Your task to perform on an android device: open app "Life360: Find Family & Friends" (install if not already installed) and enter user name: "gusts@gmail.com" and password: "assurers" Image 0: 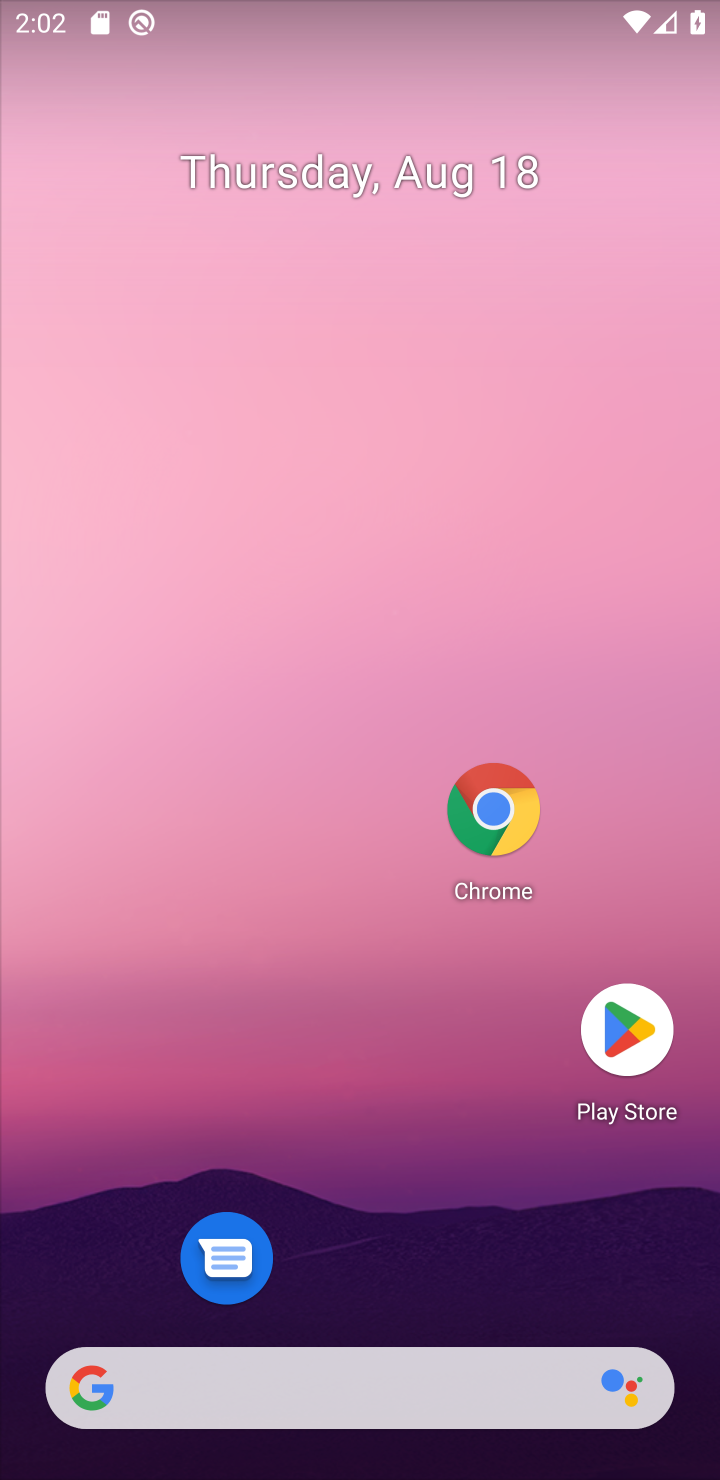
Step 0: drag from (124, 1163) to (143, 310)
Your task to perform on an android device: open app "Life360: Find Family & Friends" (install if not already installed) and enter user name: "gusts@gmail.com" and password: "assurers" Image 1: 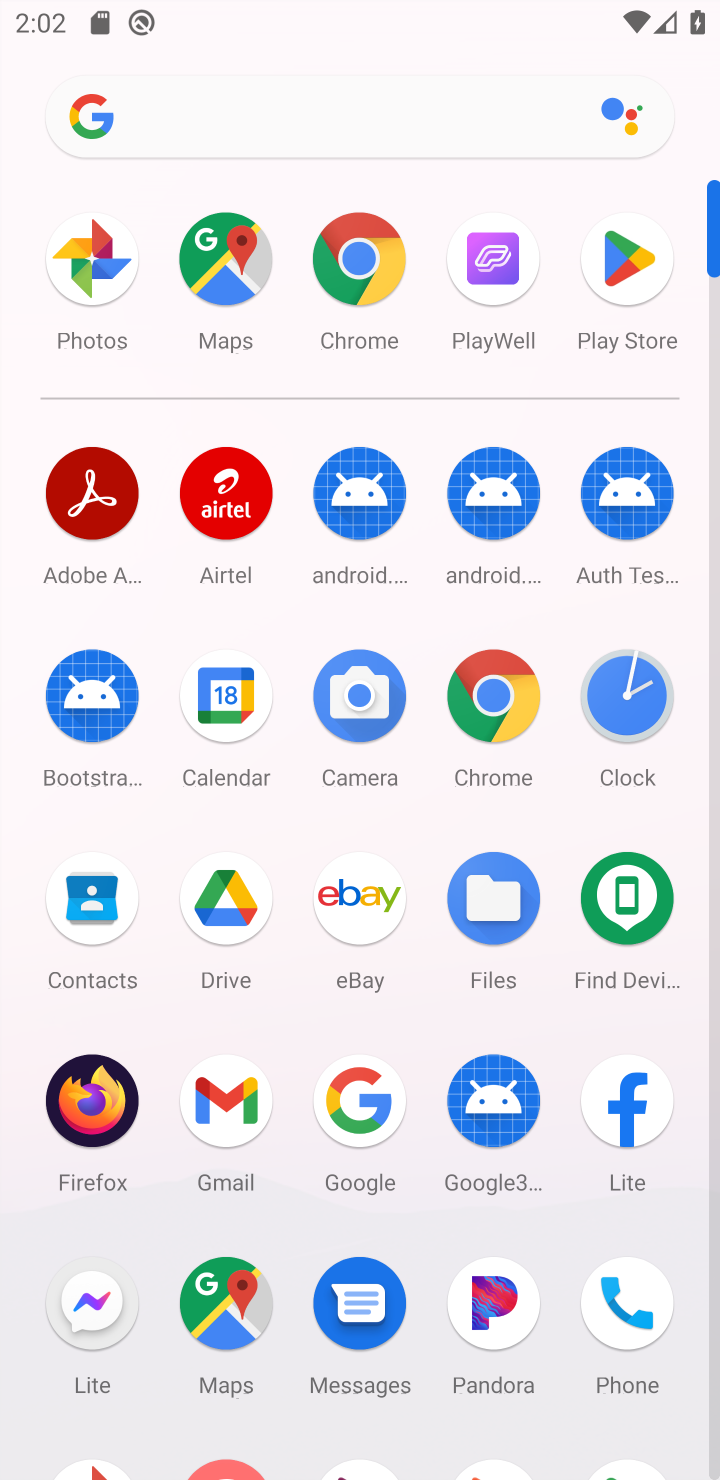
Step 1: click (614, 263)
Your task to perform on an android device: open app "Life360: Find Family & Friends" (install if not already installed) and enter user name: "gusts@gmail.com" and password: "assurers" Image 2: 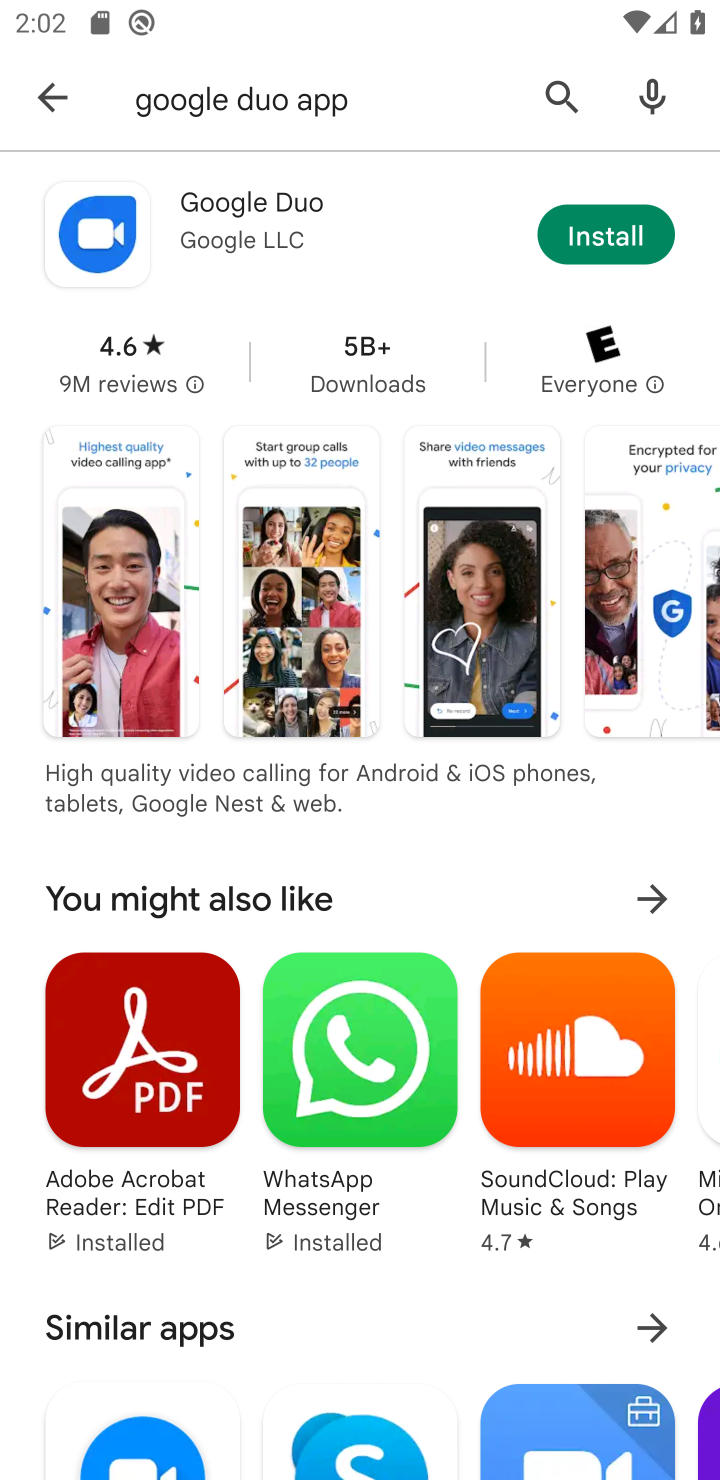
Step 2: click (66, 116)
Your task to perform on an android device: open app "Life360: Find Family & Friends" (install if not already installed) and enter user name: "gusts@gmail.com" and password: "assurers" Image 3: 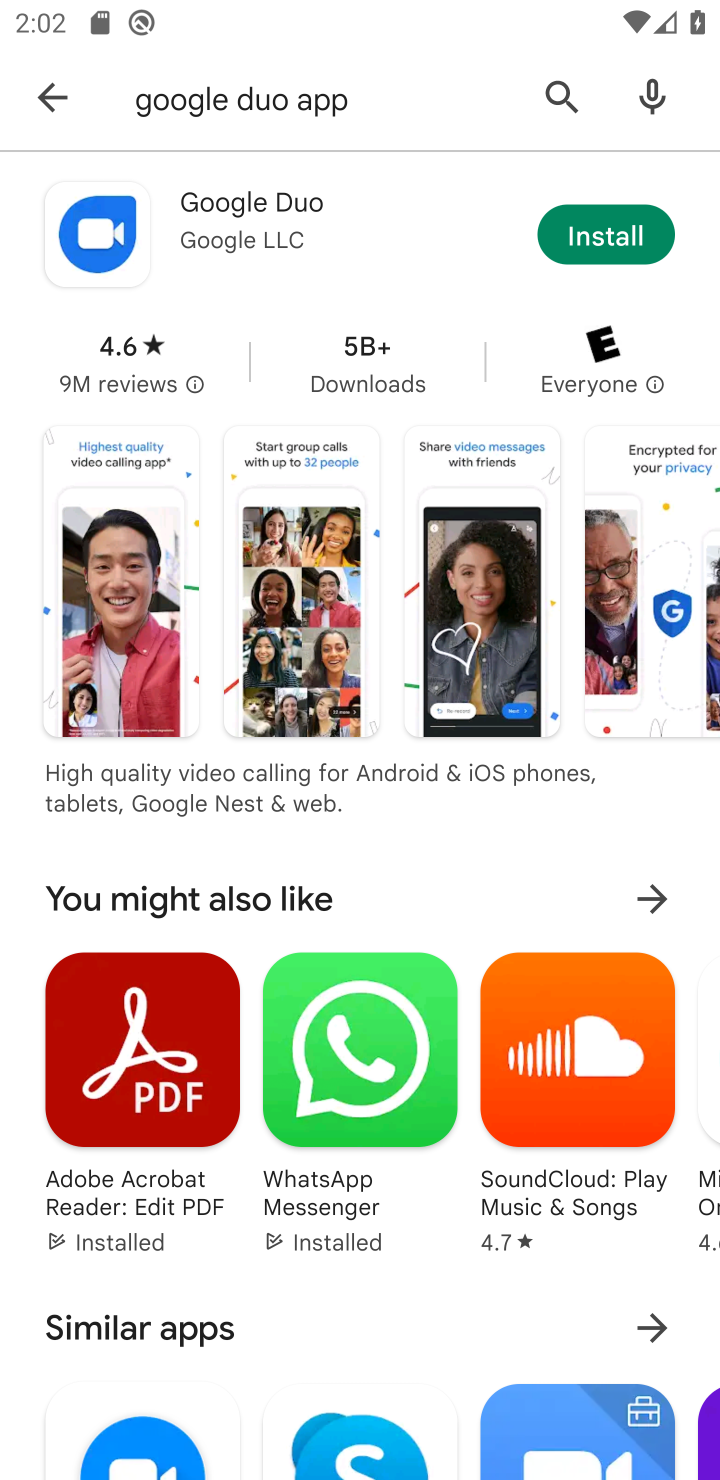
Step 3: click (55, 79)
Your task to perform on an android device: open app "Life360: Find Family & Friends" (install if not already installed) and enter user name: "gusts@gmail.com" and password: "assurers" Image 4: 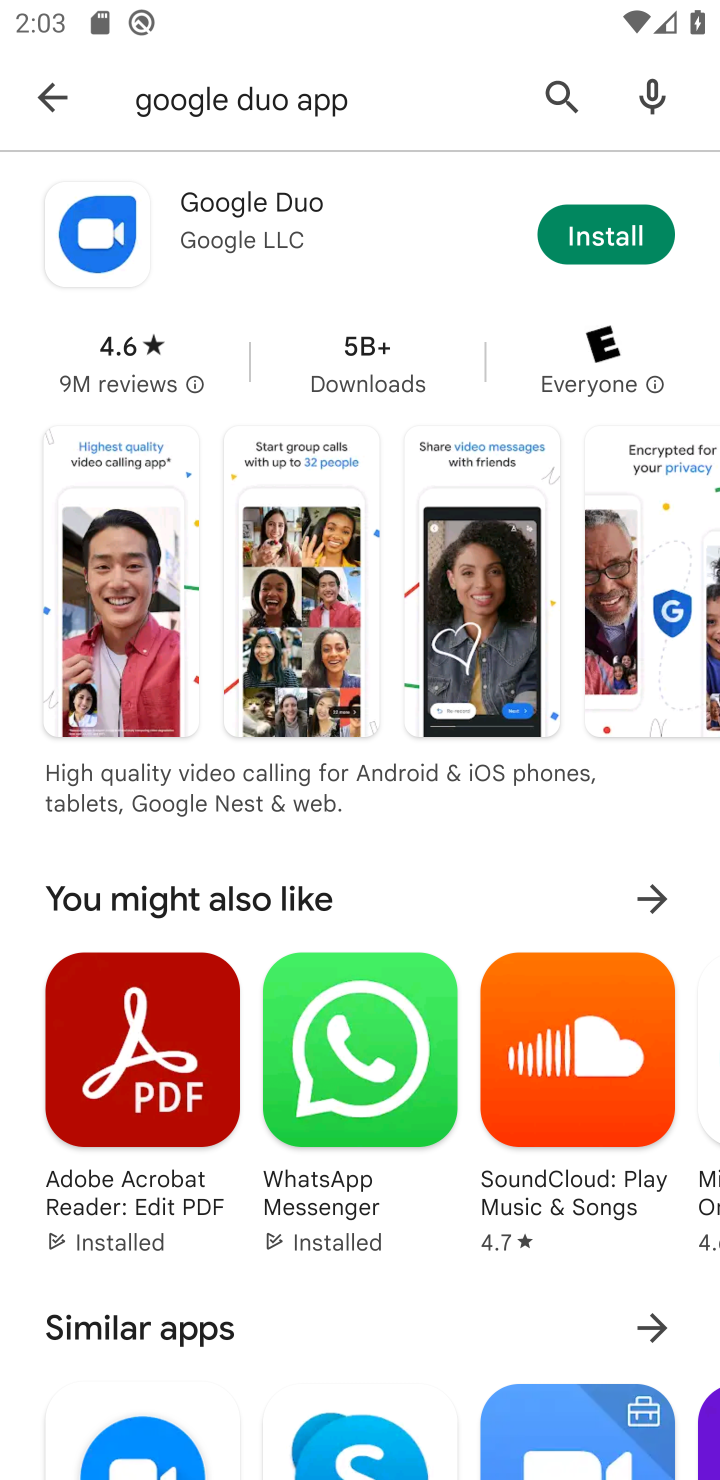
Step 4: click (53, 93)
Your task to perform on an android device: open app "Life360: Find Family & Friends" (install if not already installed) and enter user name: "gusts@gmail.com" and password: "assurers" Image 5: 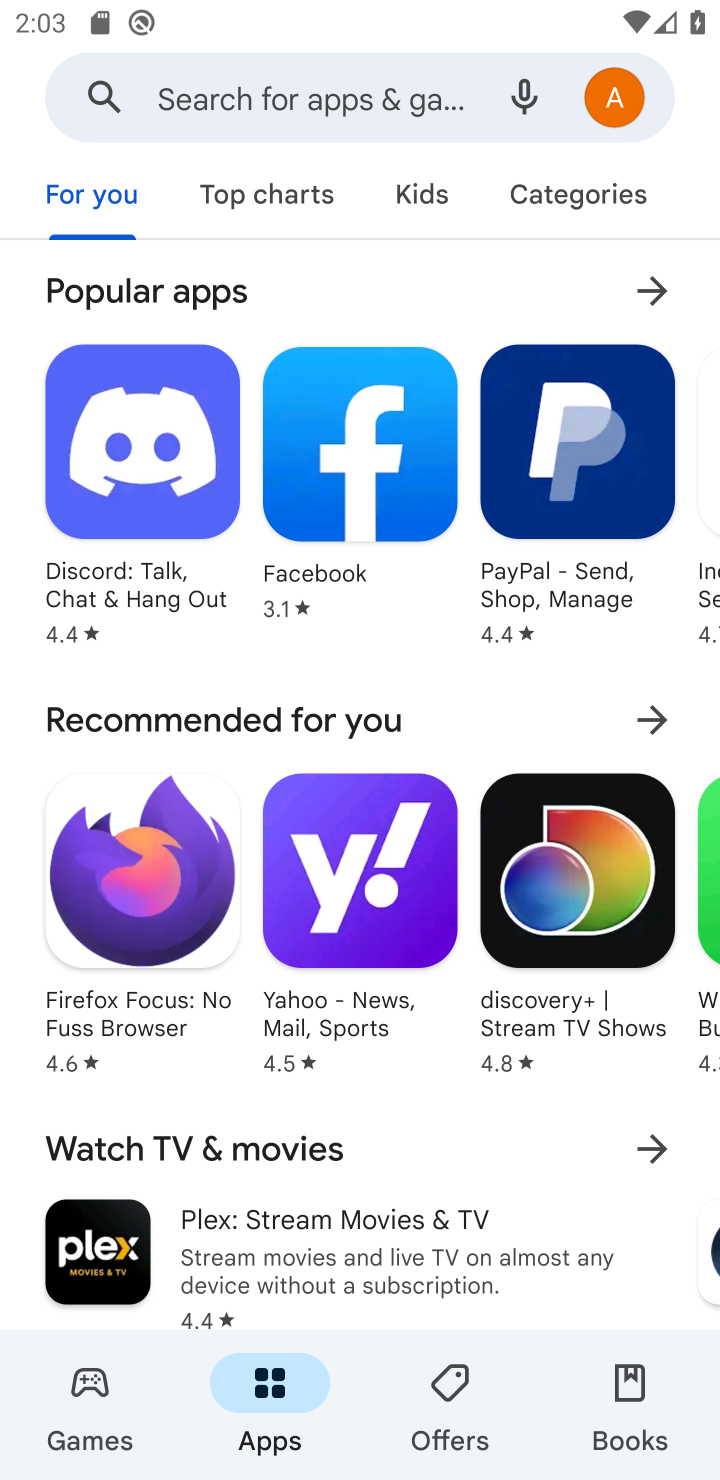
Step 5: click (354, 139)
Your task to perform on an android device: open app "Life360: Find Family & Friends" (install if not already installed) and enter user name: "gusts@gmail.com" and password: "assurers" Image 6: 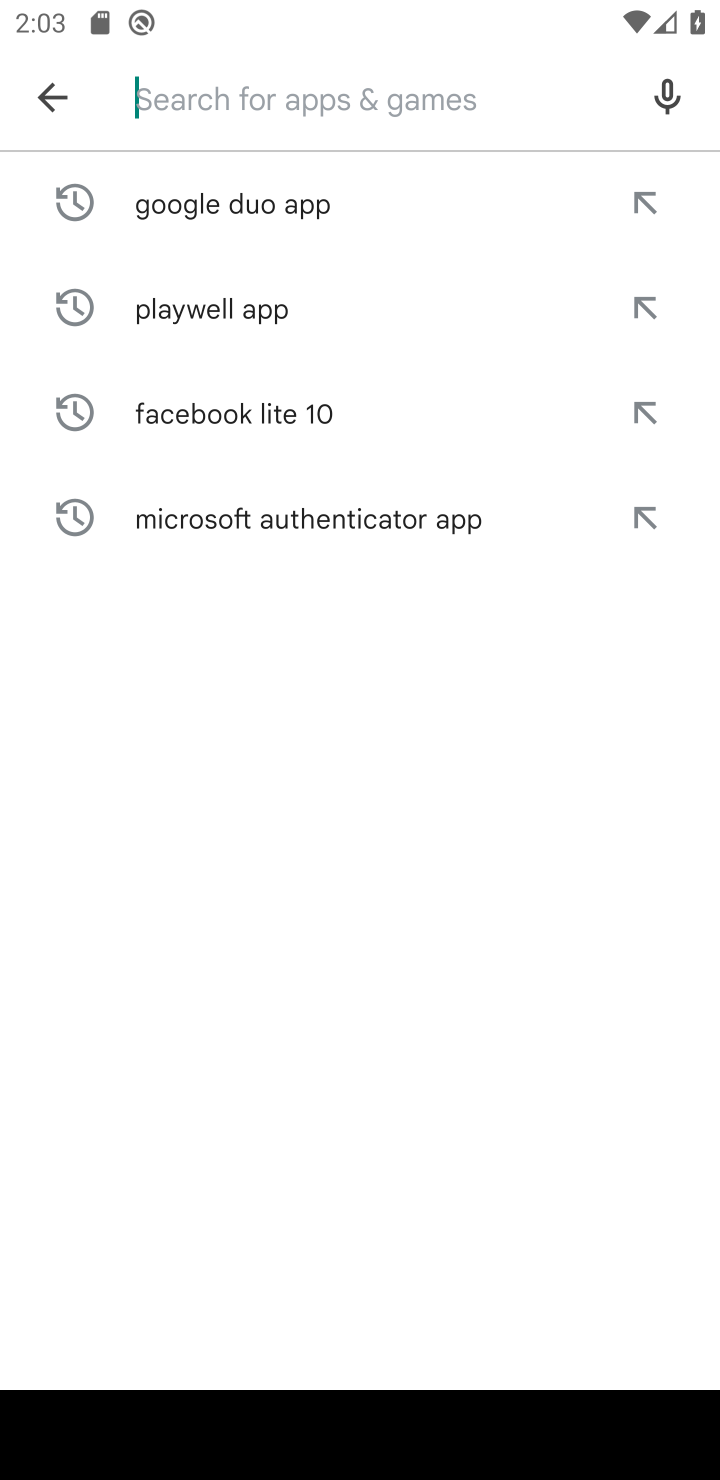
Step 6: click (380, 76)
Your task to perform on an android device: open app "Life360: Find Family & Friends" (install if not already installed) and enter user name: "gusts@gmail.com" and password: "assurers" Image 7: 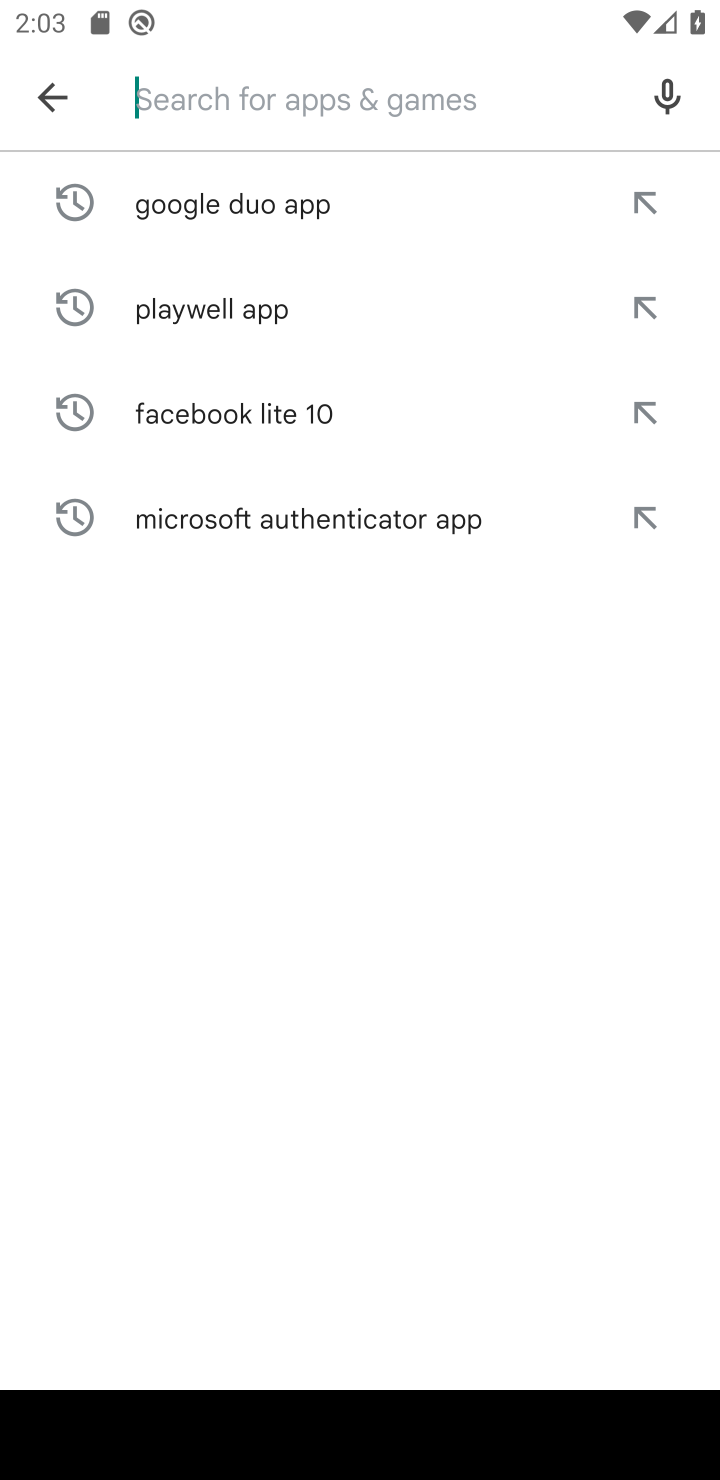
Step 7: type "Life360: Find Family & Friends "
Your task to perform on an android device: open app "Life360: Find Family & Friends" (install if not already installed) and enter user name: "gusts@gmail.com" and password: "assurers" Image 8: 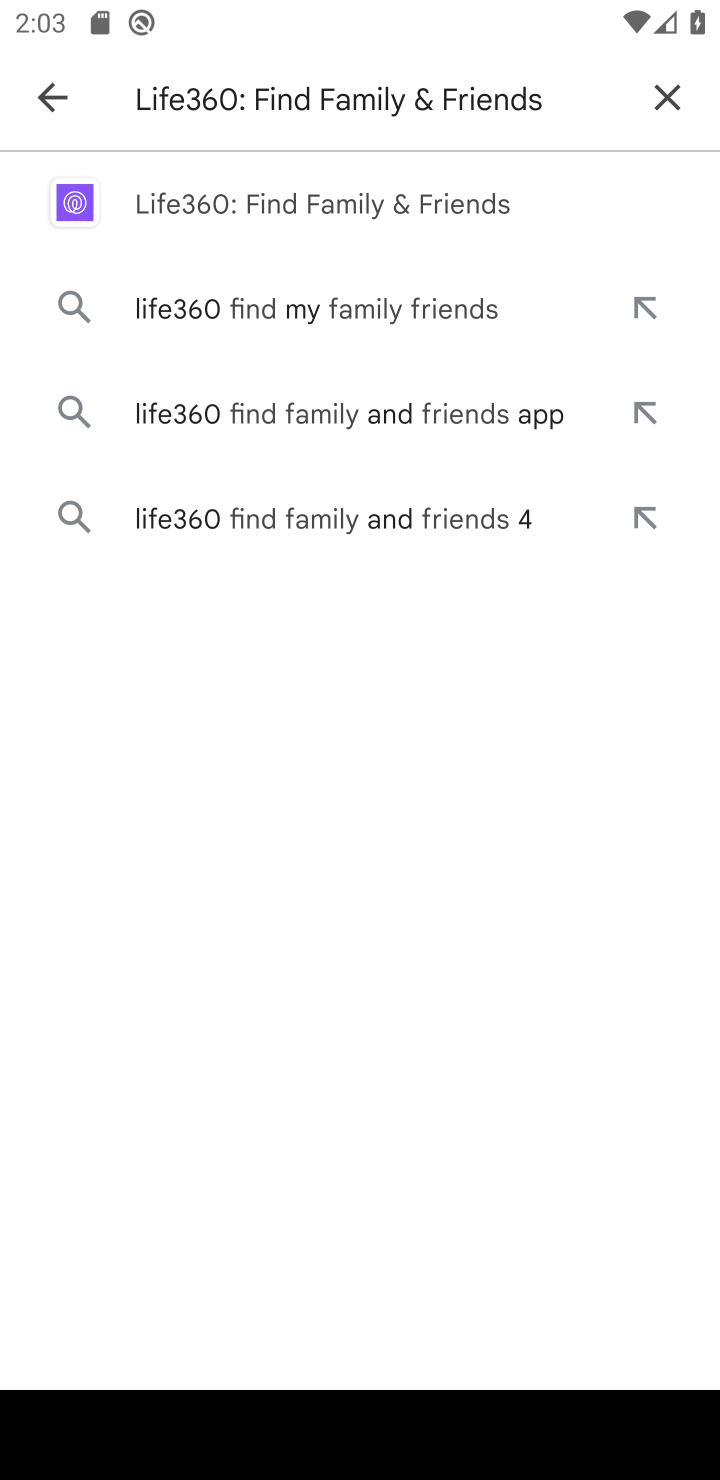
Step 8: click (308, 205)
Your task to perform on an android device: open app "Life360: Find Family & Friends" (install if not already installed) and enter user name: "gusts@gmail.com" and password: "assurers" Image 9: 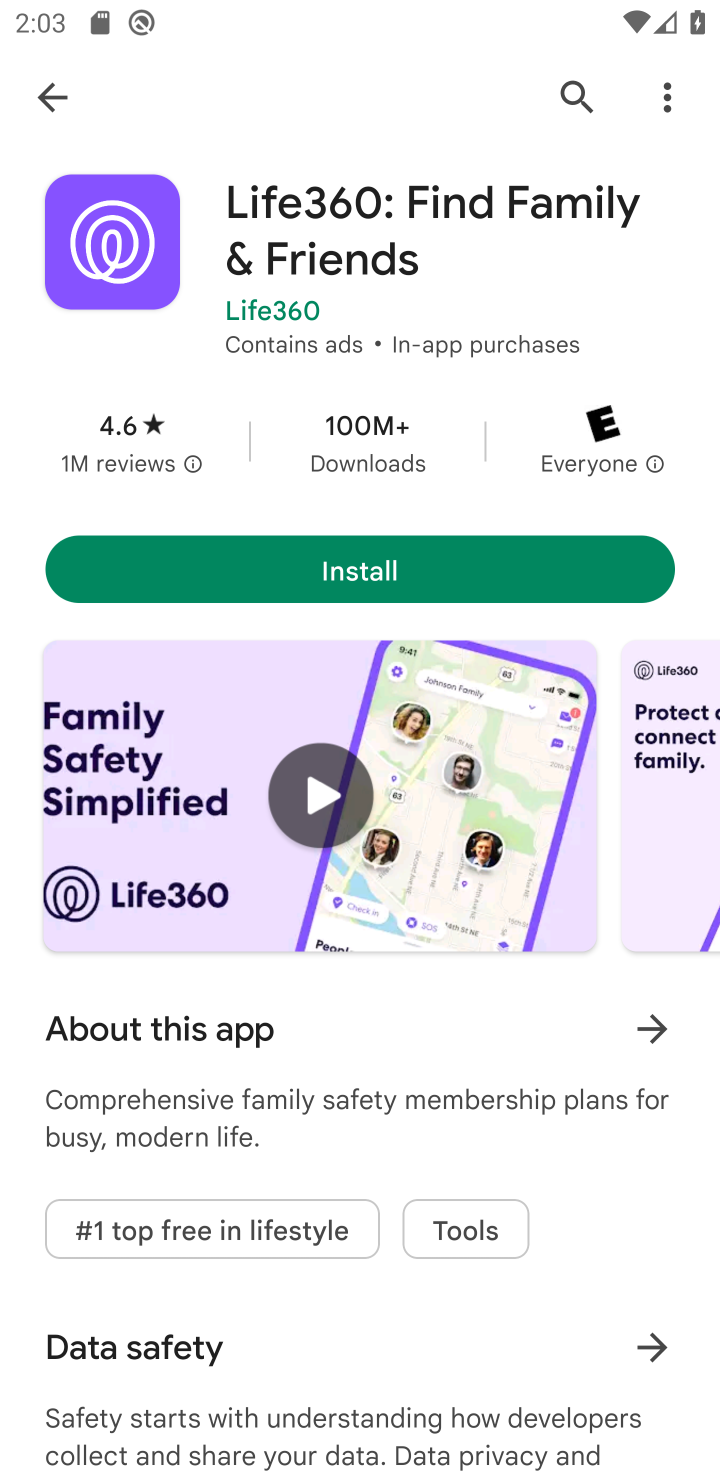
Step 9: click (505, 567)
Your task to perform on an android device: open app "Life360: Find Family & Friends" (install if not already installed) and enter user name: "gusts@gmail.com" and password: "assurers" Image 10: 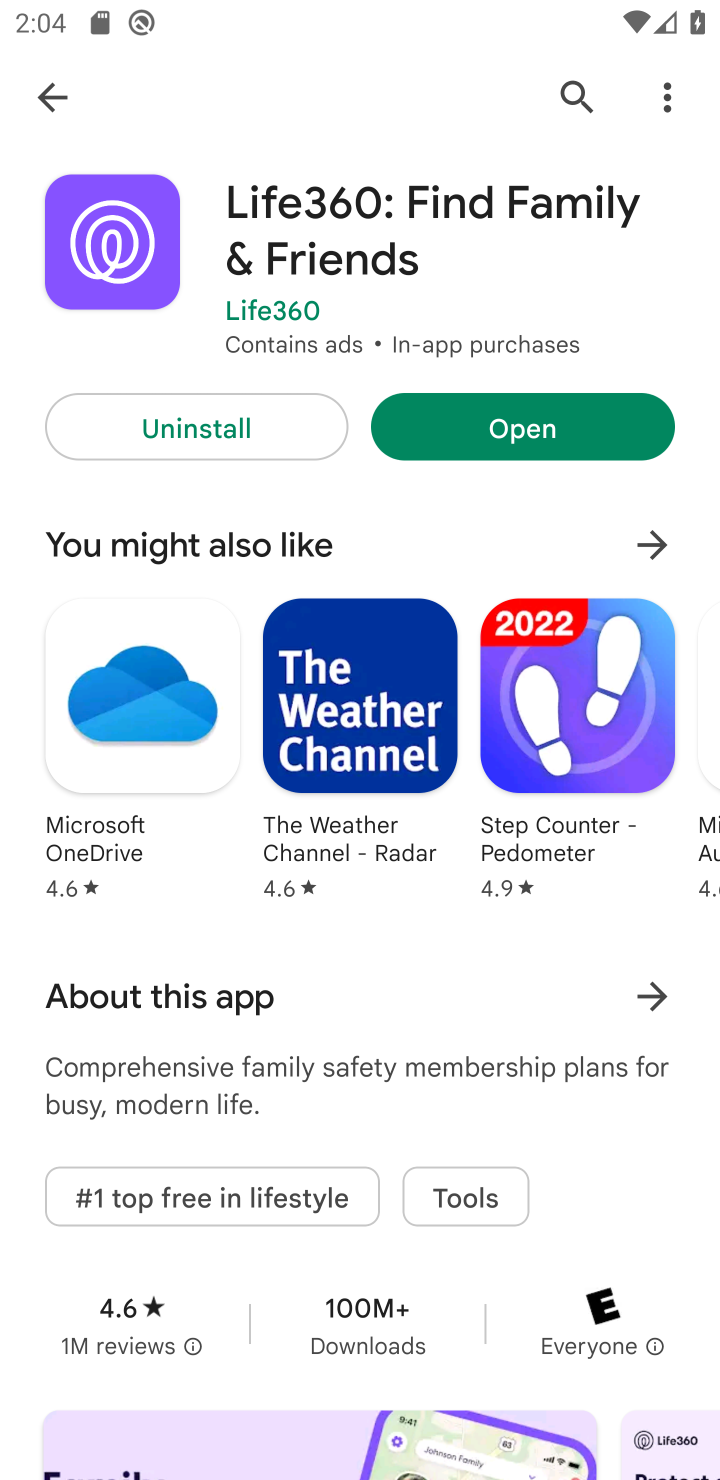
Step 10: click (455, 394)
Your task to perform on an android device: open app "Life360: Find Family & Friends" (install if not already installed) and enter user name: "gusts@gmail.com" and password: "assurers" Image 11: 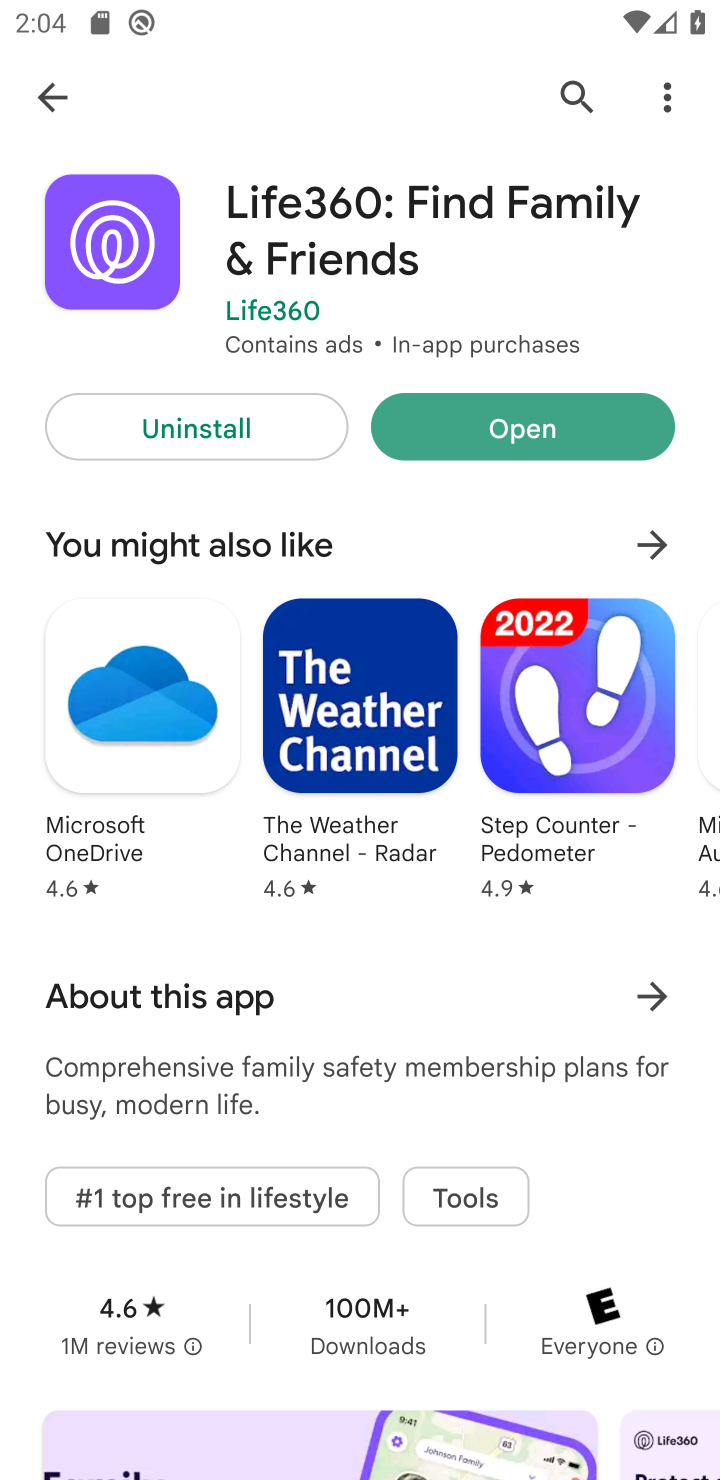
Step 11: task complete